Your task to perform on an android device: turn off location history Image 0: 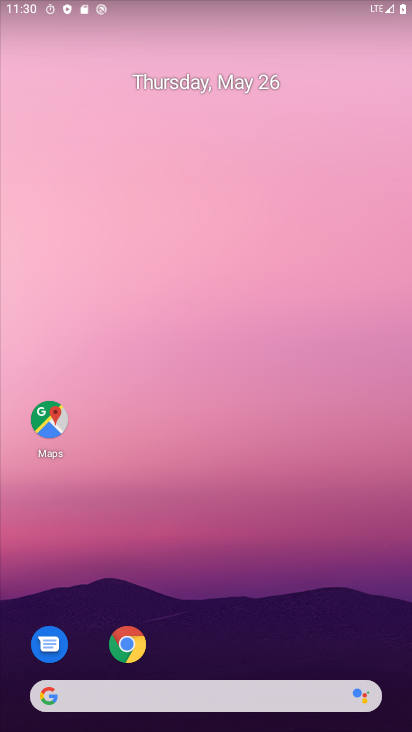
Step 0: drag from (117, 727) to (156, 34)
Your task to perform on an android device: turn off location history Image 1: 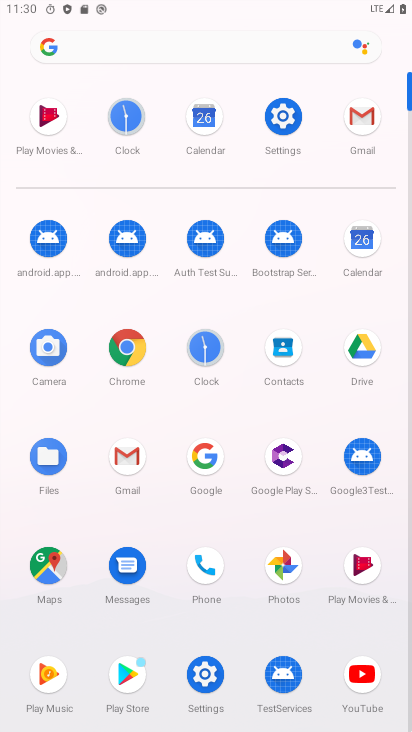
Step 1: click (290, 116)
Your task to perform on an android device: turn off location history Image 2: 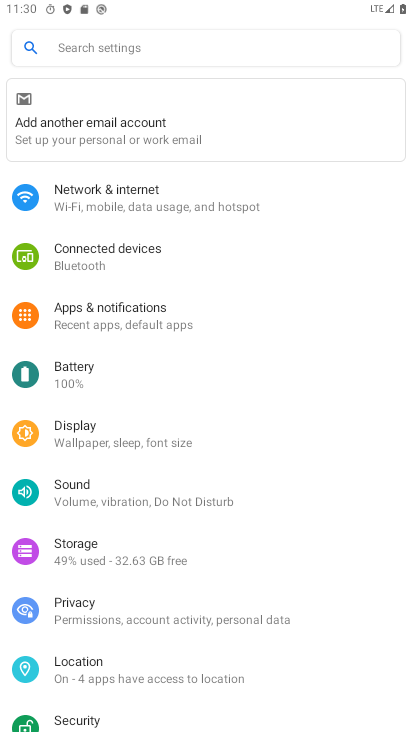
Step 2: click (146, 679)
Your task to perform on an android device: turn off location history Image 3: 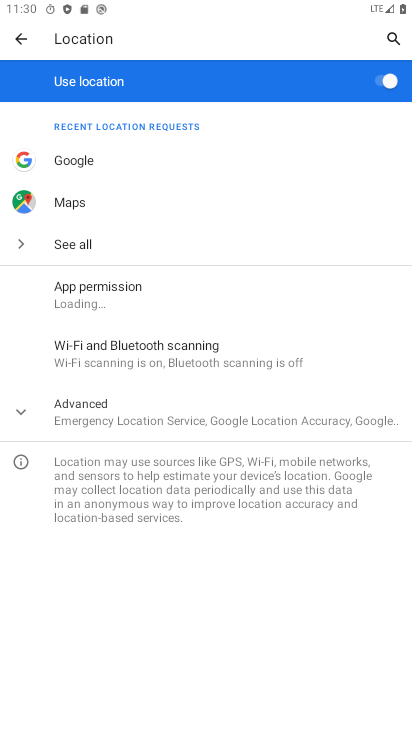
Step 3: click (161, 410)
Your task to perform on an android device: turn off location history Image 4: 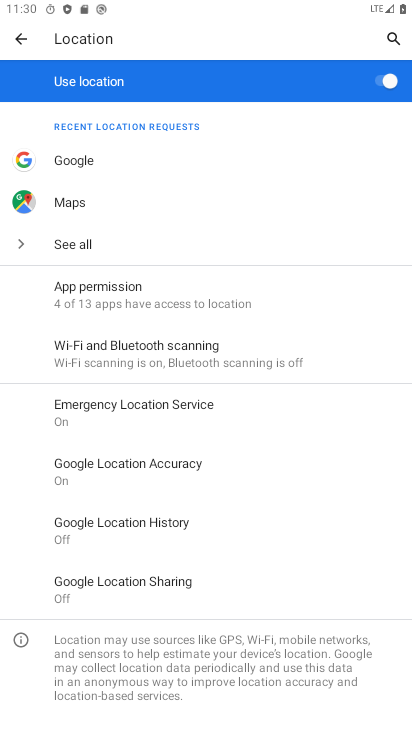
Step 4: click (129, 522)
Your task to perform on an android device: turn off location history Image 5: 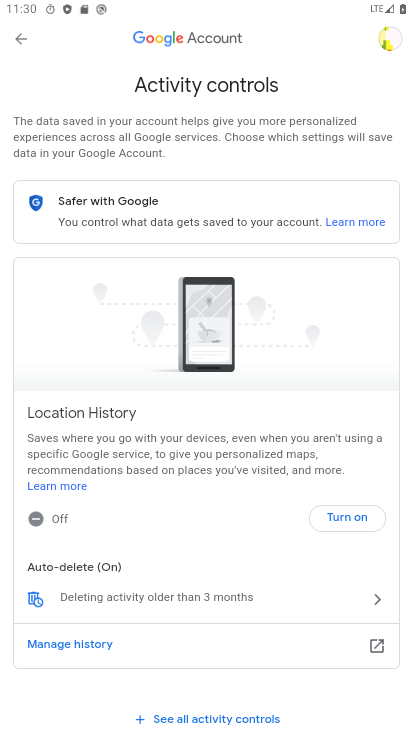
Step 5: task complete